Your task to perform on an android device: turn on notifications settings in the gmail app Image 0: 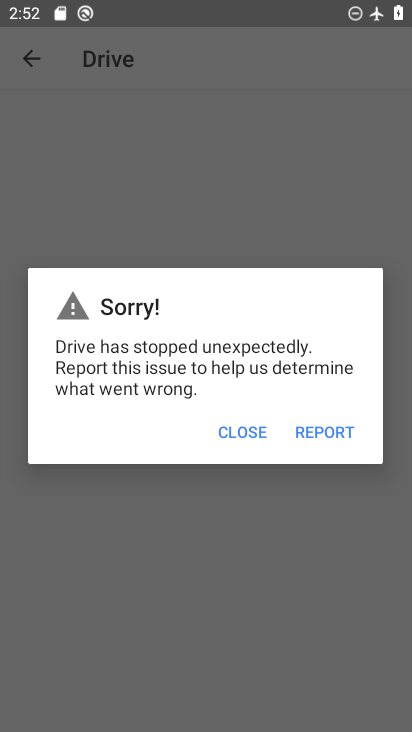
Step 0: click (238, 433)
Your task to perform on an android device: turn on notifications settings in the gmail app Image 1: 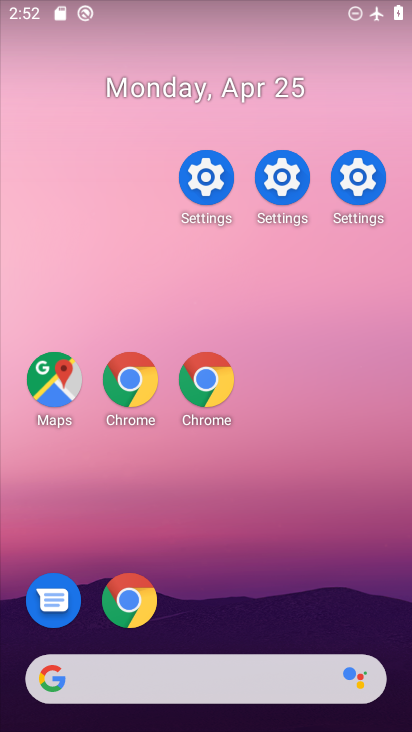
Step 1: drag from (226, 698) to (238, 22)
Your task to perform on an android device: turn on notifications settings in the gmail app Image 2: 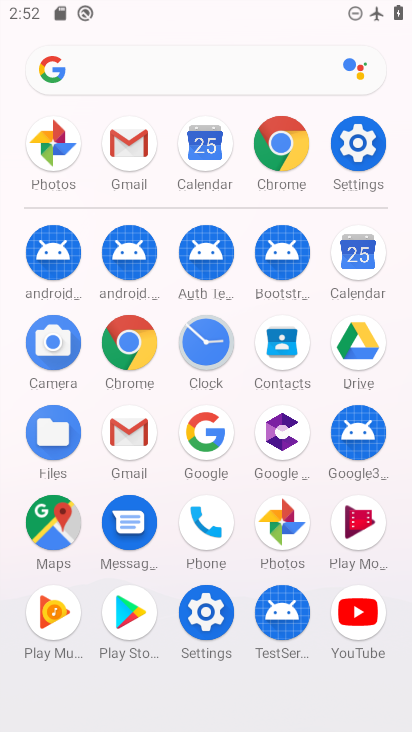
Step 2: click (120, 433)
Your task to perform on an android device: turn on notifications settings in the gmail app Image 3: 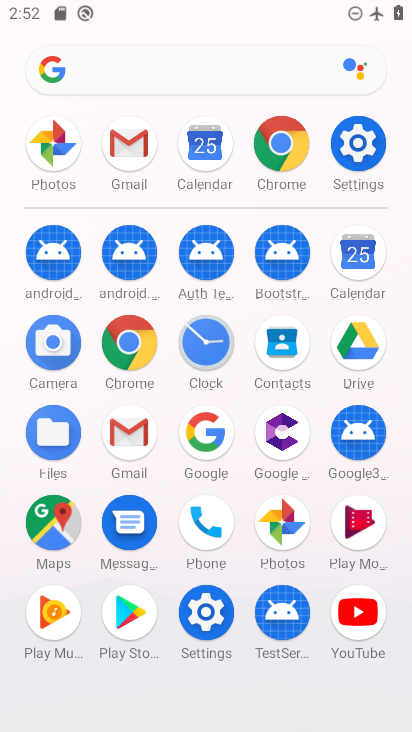
Step 3: drag from (120, 433) to (94, 409)
Your task to perform on an android device: turn on notifications settings in the gmail app Image 4: 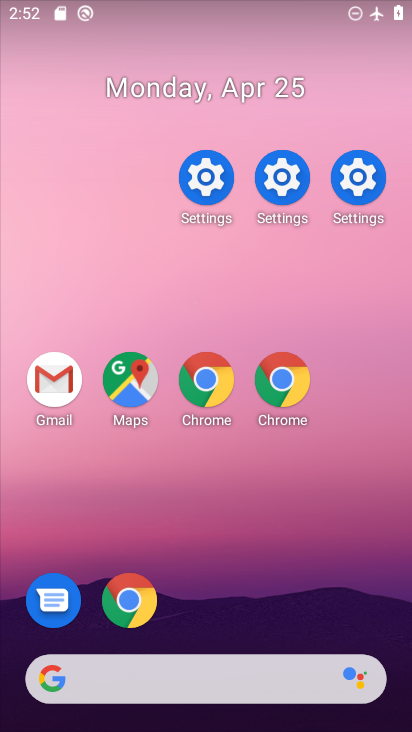
Step 4: drag from (211, 690) to (167, 90)
Your task to perform on an android device: turn on notifications settings in the gmail app Image 5: 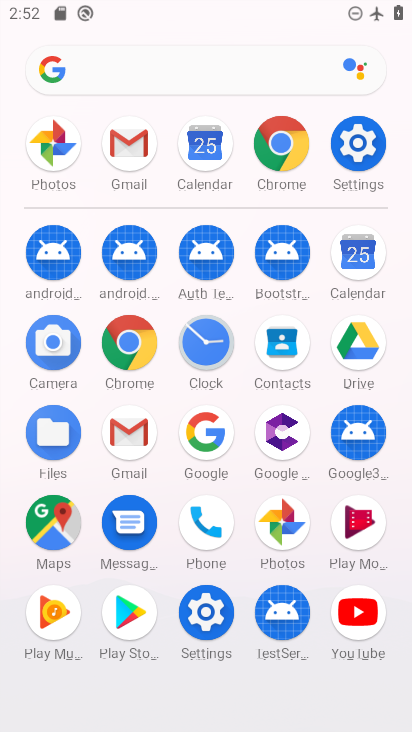
Step 5: drag from (274, 525) to (227, 143)
Your task to perform on an android device: turn on notifications settings in the gmail app Image 6: 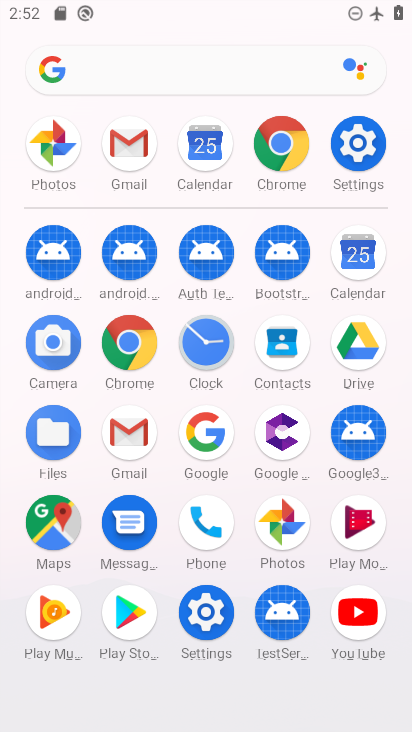
Step 6: click (147, 442)
Your task to perform on an android device: turn on notifications settings in the gmail app Image 7: 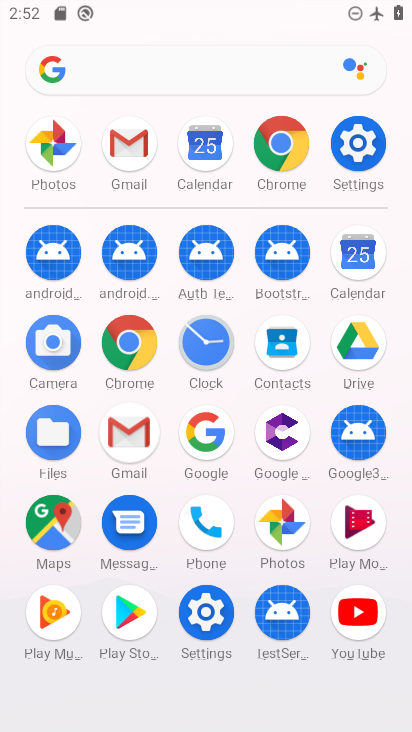
Step 7: click (143, 425)
Your task to perform on an android device: turn on notifications settings in the gmail app Image 8: 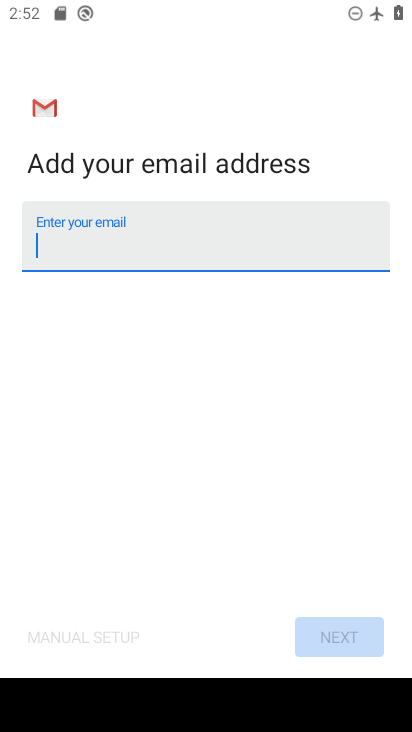
Step 8: press back button
Your task to perform on an android device: turn on notifications settings in the gmail app Image 9: 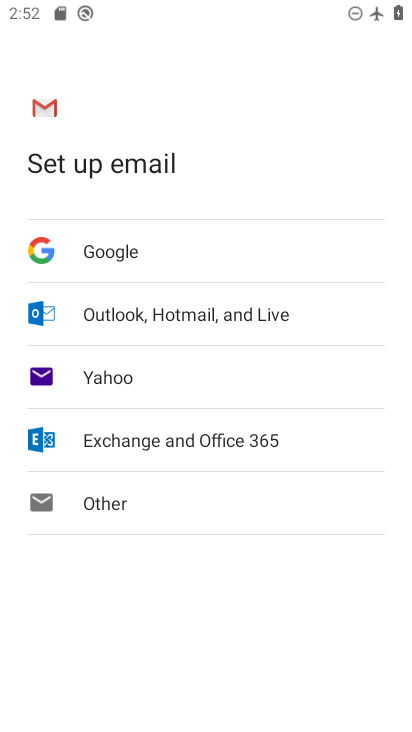
Step 9: press back button
Your task to perform on an android device: turn on notifications settings in the gmail app Image 10: 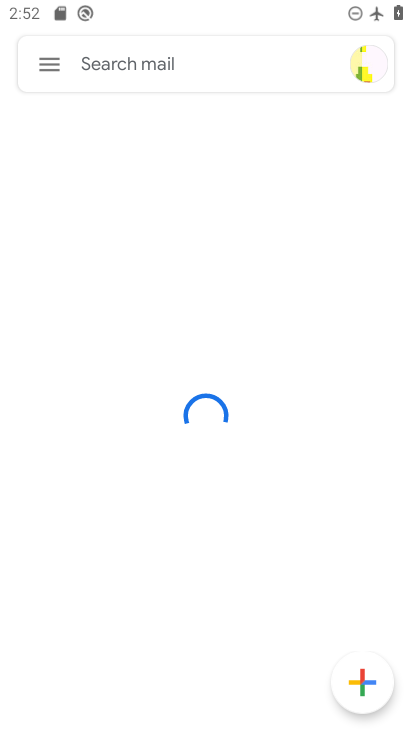
Step 10: click (46, 55)
Your task to perform on an android device: turn on notifications settings in the gmail app Image 11: 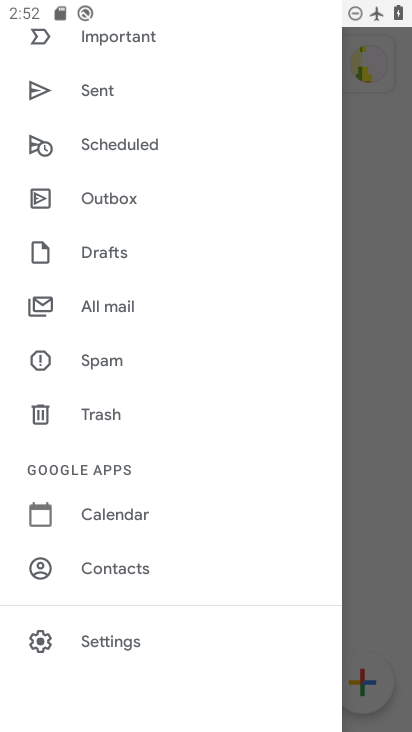
Step 11: click (106, 638)
Your task to perform on an android device: turn on notifications settings in the gmail app Image 12: 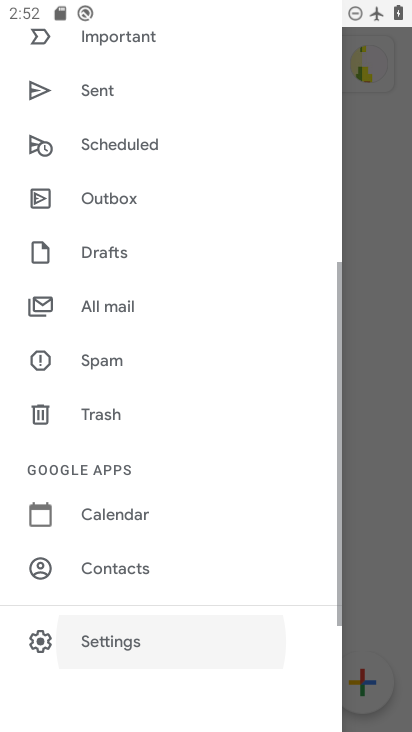
Step 12: click (112, 646)
Your task to perform on an android device: turn on notifications settings in the gmail app Image 13: 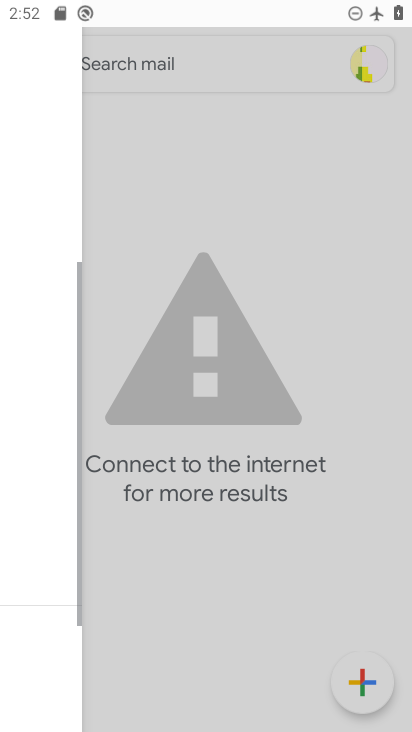
Step 13: click (112, 651)
Your task to perform on an android device: turn on notifications settings in the gmail app Image 14: 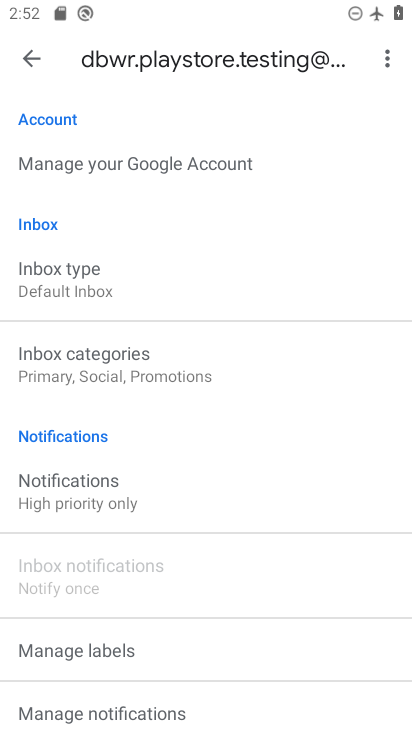
Step 14: click (66, 474)
Your task to perform on an android device: turn on notifications settings in the gmail app Image 15: 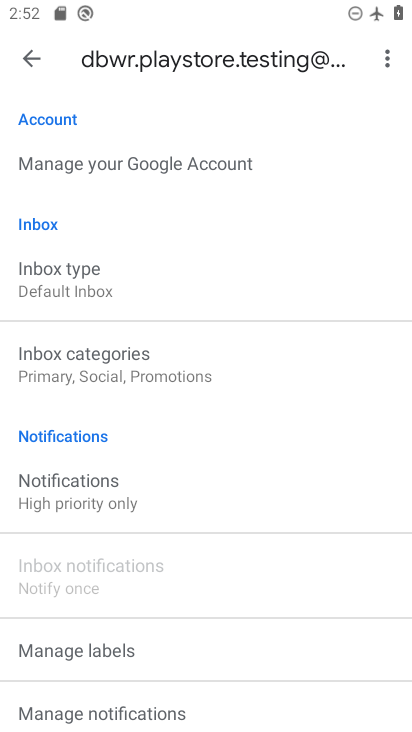
Step 15: click (66, 474)
Your task to perform on an android device: turn on notifications settings in the gmail app Image 16: 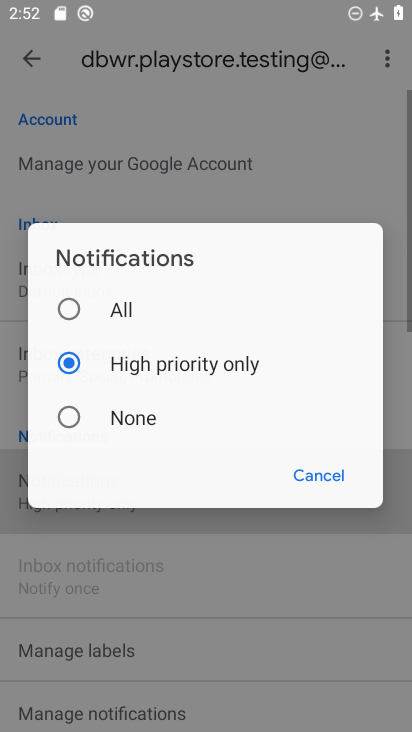
Step 16: click (66, 474)
Your task to perform on an android device: turn on notifications settings in the gmail app Image 17: 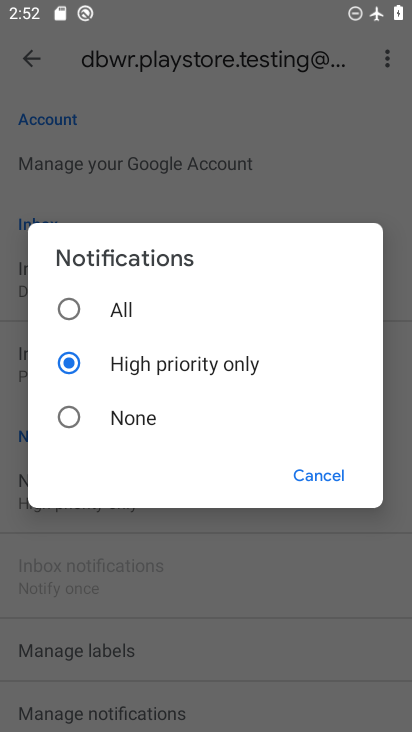
Step 17: click (73, 300)
Your task to perform on an android device: turn on notifications settings in the gmail app Image 18: 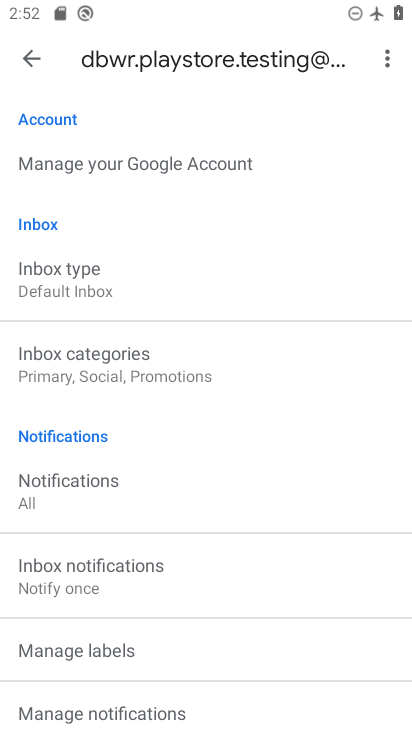
Step 18: task complete